Your task to perform on an android device: turn on sleep mode Image 0: 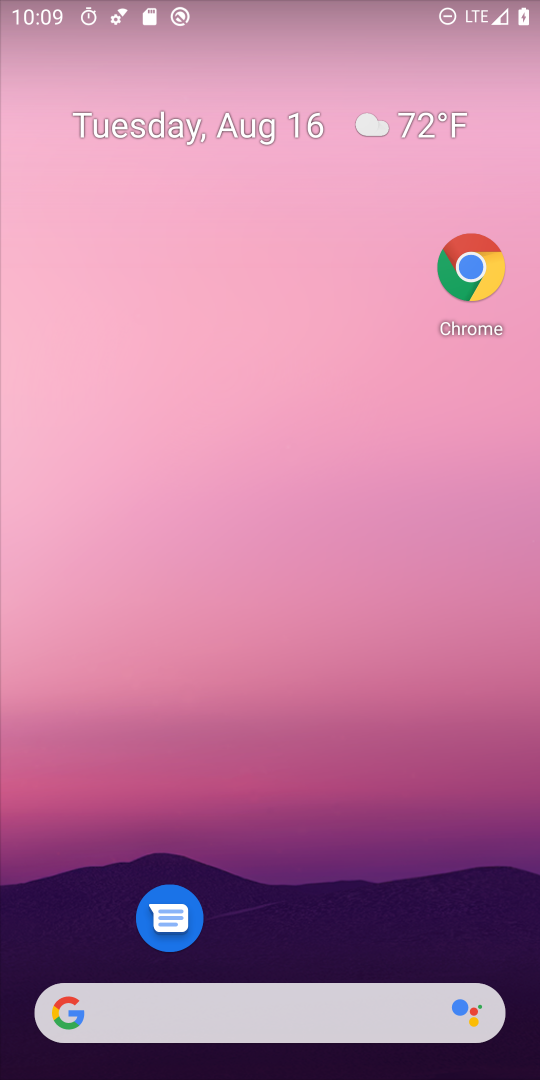
Step 0: drag from (198, 559) to (185, 32)
Your task to perform on an android device: turn on sleep mode Image 1: 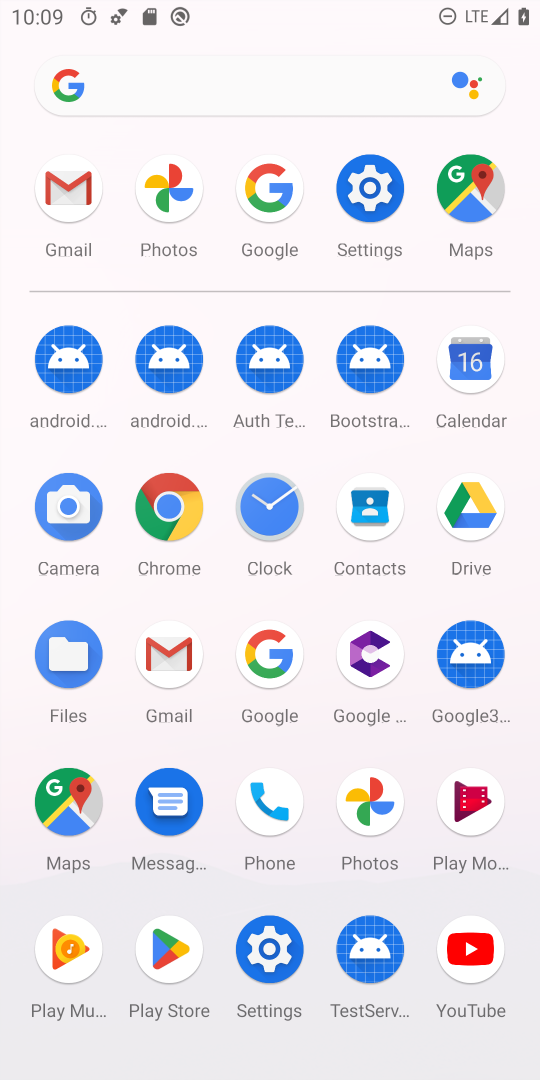
Step 1: click (370, 207)
Your task to perform on an android device: turn on sleep mode Image 2: 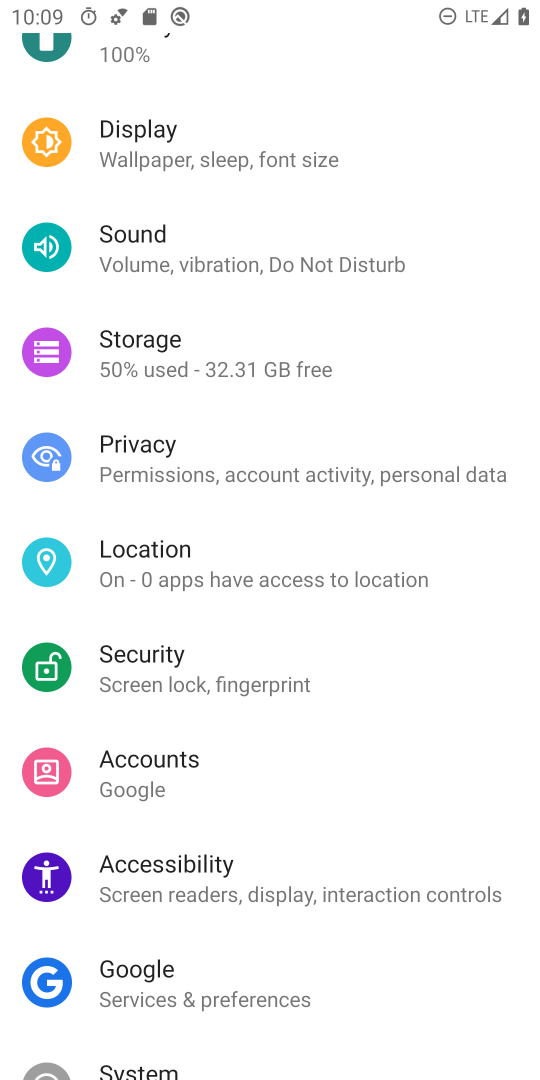
Step 2: click (272, 158)
Your task to perform on an android device: turn on sleep mode Image 3: 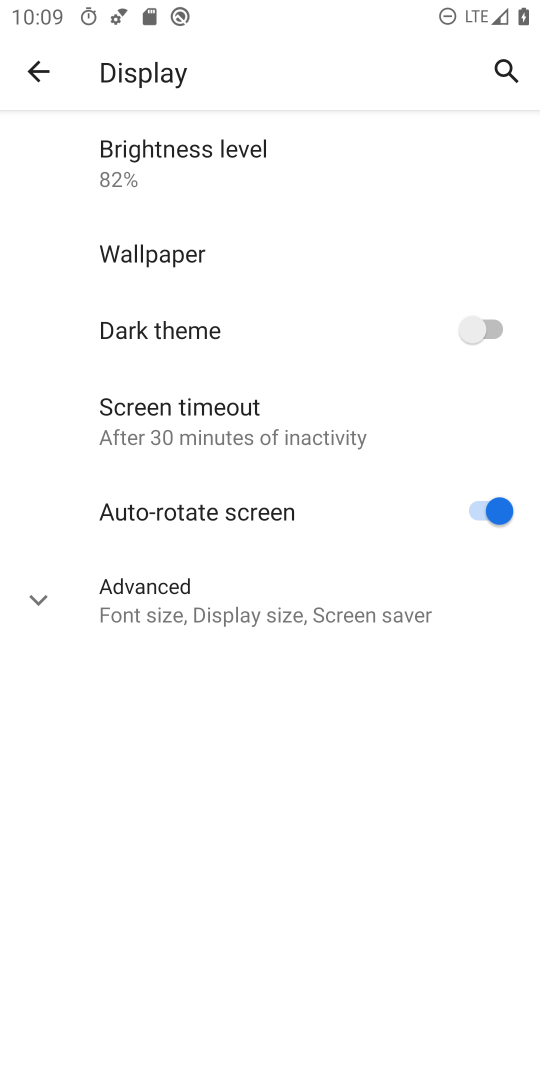
Step 3: click (273, 601)
Your task to perform on an android device: turn on sleep mode Image 4: 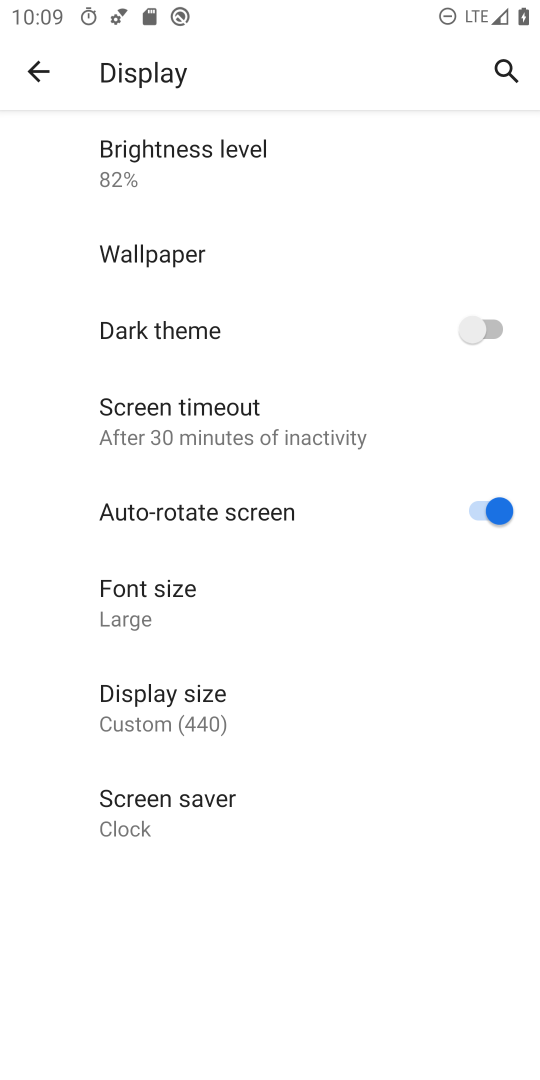
Step 4: task complete